Your task to perform on an android device: Search for sushi restaurants on Maps Image 0: 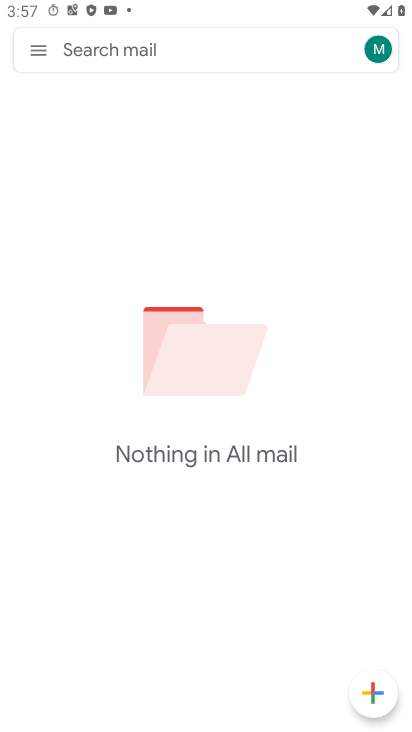
Step 0: press home button
Your task to perform on an android device: Search for sushi restaurants on Maps Image 1: 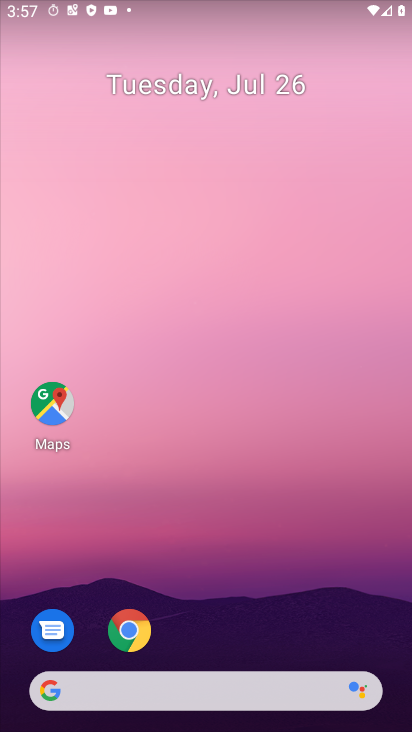
Step 1: click (45, 399)
Your task to perform on an android device: Search for sushi restaurants on Maps Image 2: 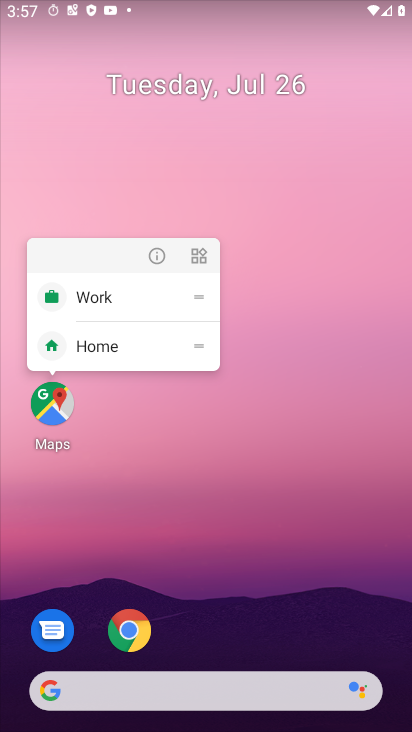
Step 2: click (45, 399)
Your task to perform on an android device: Search for sushi restaurants on Maps Image 3: 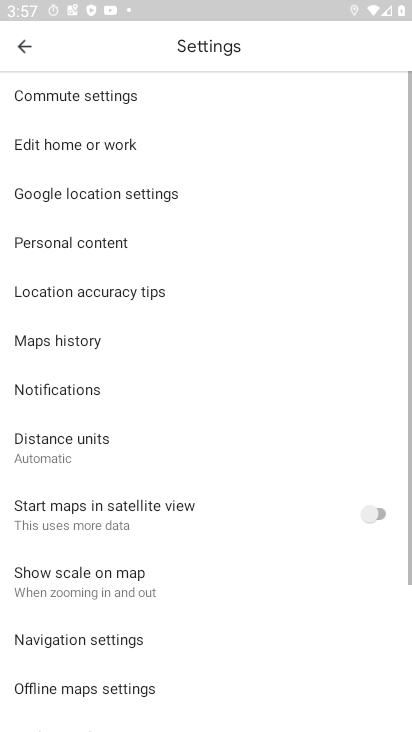
Step 3: click (19, 37)
Your task to perform on an android device: Search for sushi restaurants on Maps Image 4: 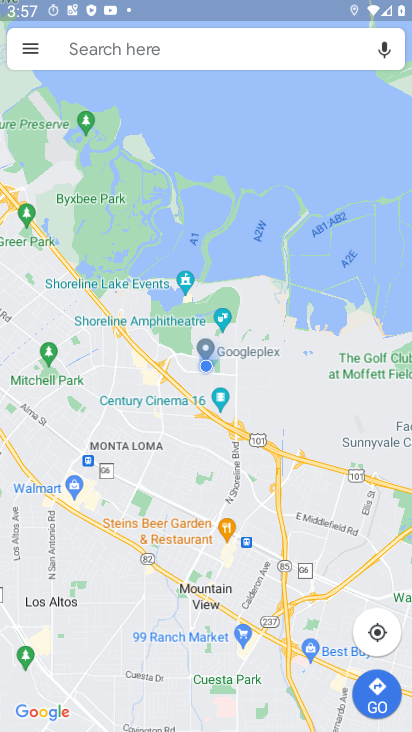
Step 4: click (189, 45)
Your task to perform on an android device: Search for sushi restaurants on Maps Image 5: 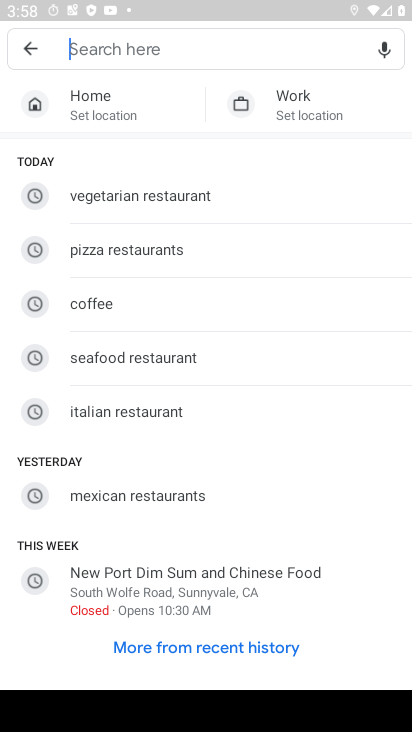
Step 5: type "sushi restaurants"
Your task to perform on an android device: Search for sushi restaurants on Maps Image 6: 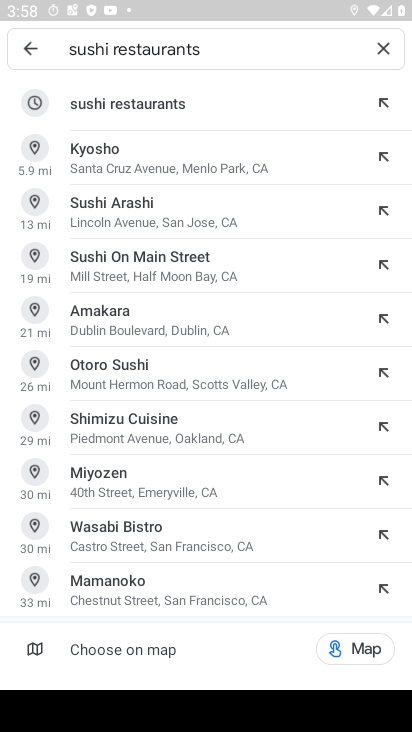
Step 6: click (254, 102)
Your task to perform on an android device: Search for sushi restaurants on Maps Image 7: 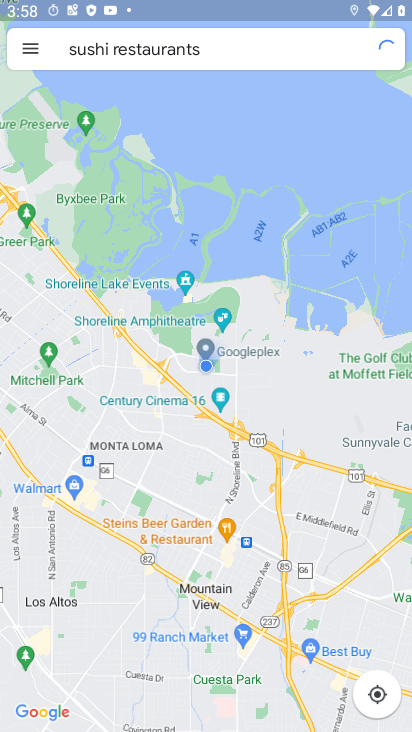
Step 7: click (254, 102)
Your task to perform on an android device: Search for sushi restaurants on Maps Image 8: 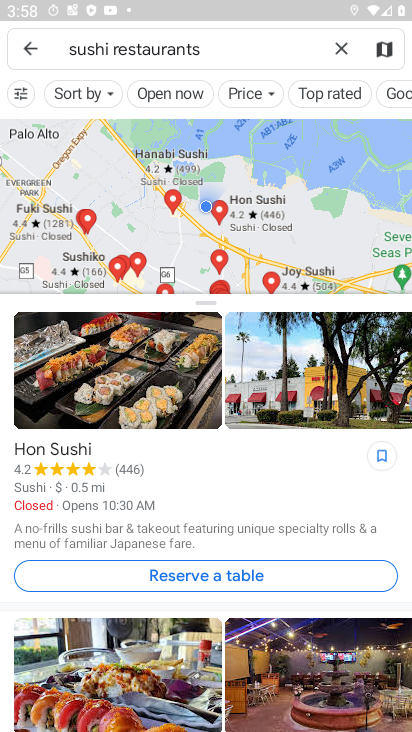
Step 8: task complete